Your task to perform on an android device: Open Yahoo.com Image 0: 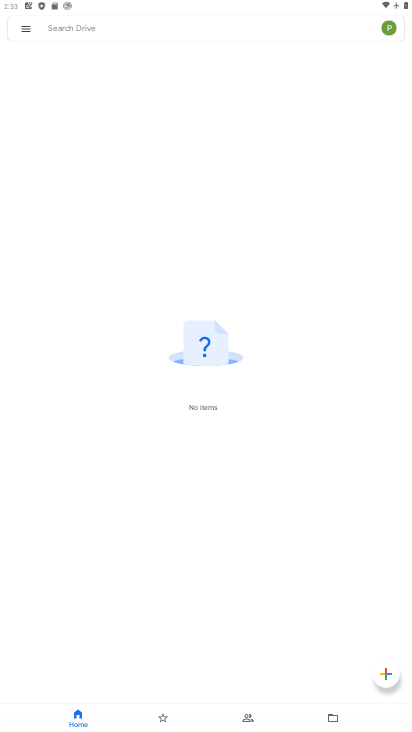
Step 0: press home button
Your task to perform on an android device: Open Yahoo.com Image 1: 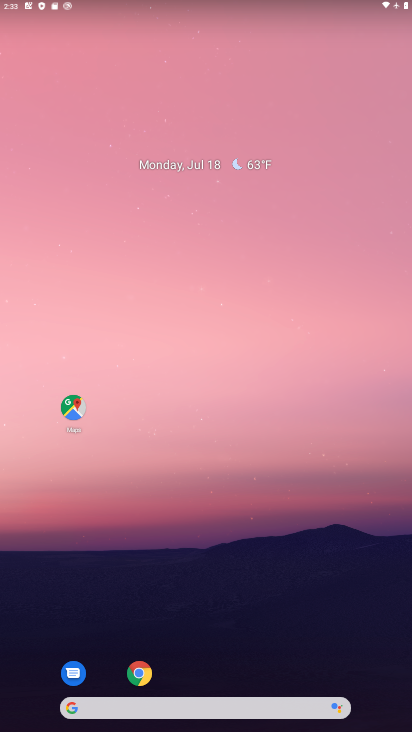
Step 1: drag from (215, 631) to (242, 184)
Your task to perform on an android device: Open Yahoo.com Image 2: 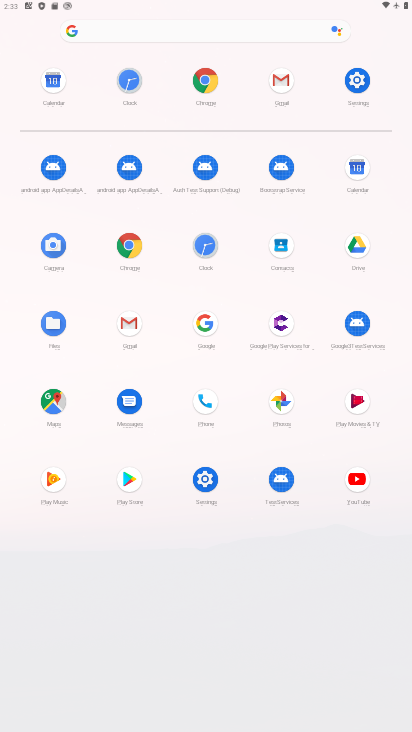
Step 2: click (208, 75)
Your task to perform on an android device: Open Yahoo.com Image 3: 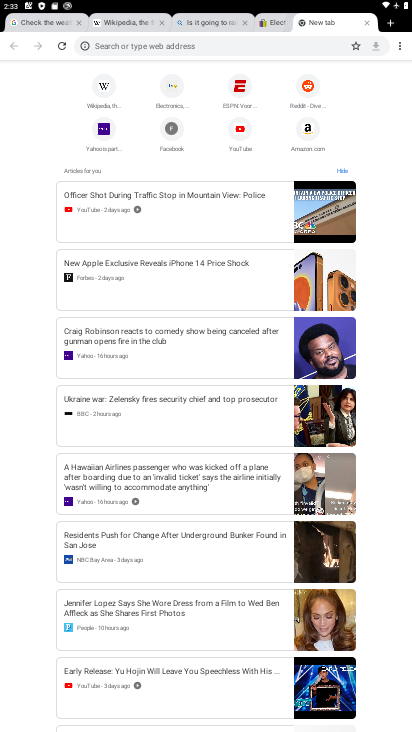
Step 3: click (104, 136)
Your task to perform on an android device: Open Yahoo.com Image 4: 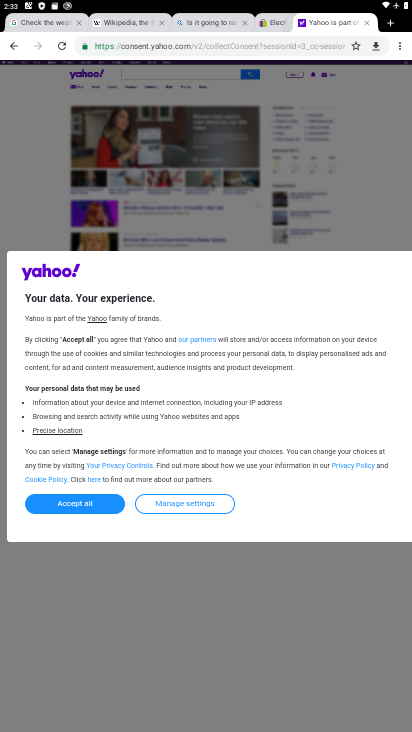
Step 4: task complete